Your task to perform on an android device: Search for the best rated 4K TV on Best Buy. Image 0: 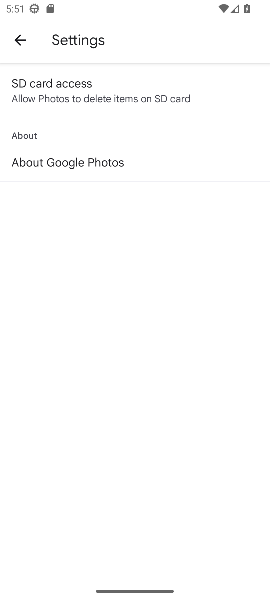
Step 0: press home button
Your task to perform on an android device: Search for the best rated 4K TV on Best Buy. Image 1: 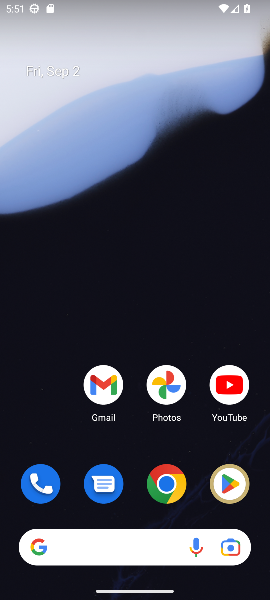
Step 1: click (167, 478)
Your task to perform on an android device: Search for the best rated 4K TV on Best Buy. Image 2: 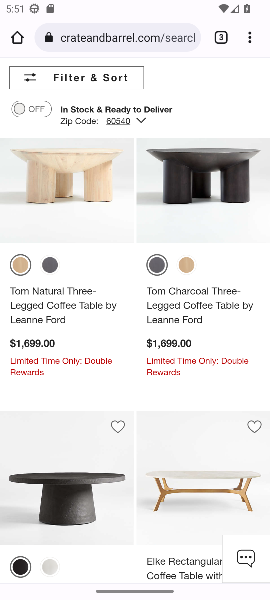
Step 2: click (165, 33)
Your task to perform on an android device: Search for the best rated 4K TV on Best Buy. Image 3: 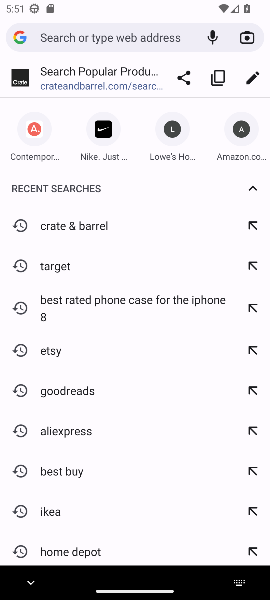
Step 3: type "Best Buy"
Your task to perform on an android device: Search for the best rated 4K TV on Best Buy. Image 4: 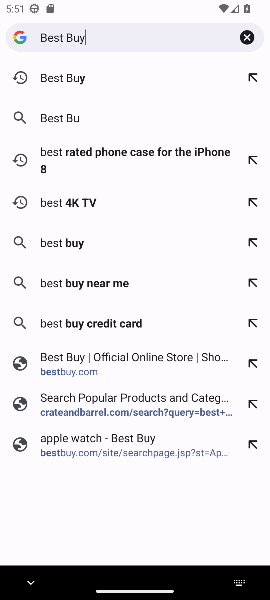
Step 4: press enter
Your task to perform on an android device: Search for the best rated 4K TV on Best Buy. Image 5: 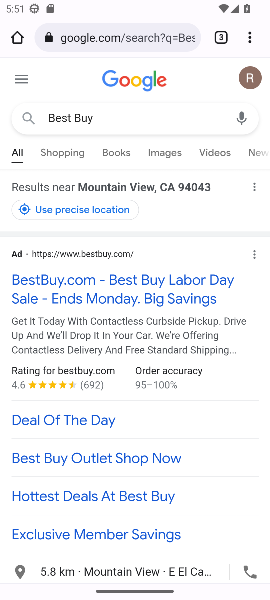
Step 5: drag from (131, 482) to (250, 126)
Your task to perform on an android device: Search for the best rated 4K TV on Best Buy. Image 6: 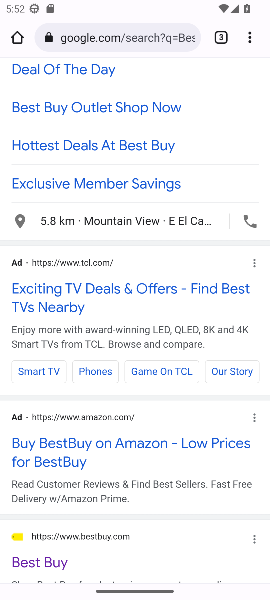
Step 6: drag from (111, 509) to (183, 244)
Your task to perform on an android device: Search for the best rated 4K TV on Best Buy. Image 7: 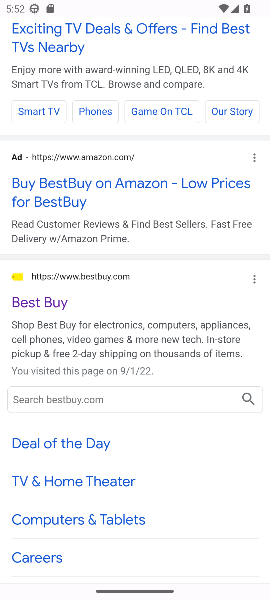
Step 7: click (26, 305)
Your task to perform on an android device: Search for the best rated 4K TV on Best Buy. Image 8: 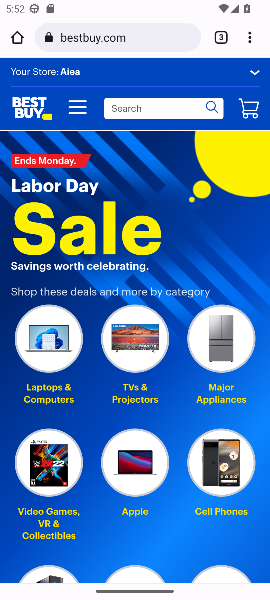
Step 8: click (161, 105)
Your task to perform on an android device: Search for the best rated 4K TV on Best Buy. Image 9: 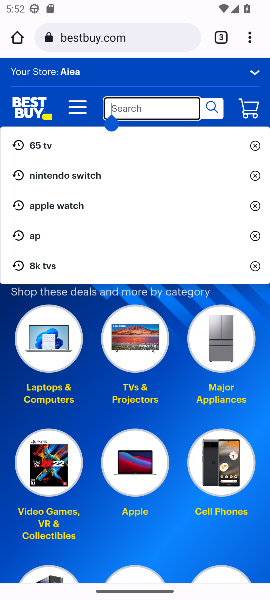
Step 9: click (191, 113)
Your task to perform on an android device: Search for the best rated 4K TV on Best Buy. Image 10: 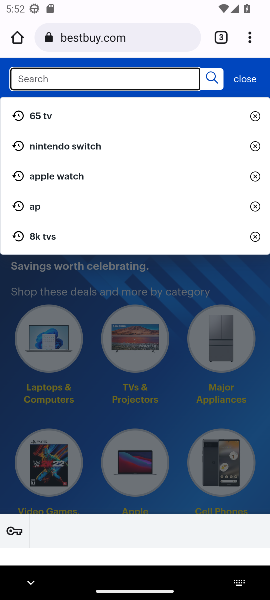
Step 10: type "best rated 4K TV"
Your task to perform on an android device: Search for the best rated 4K TV on Best Buy. Image 11: 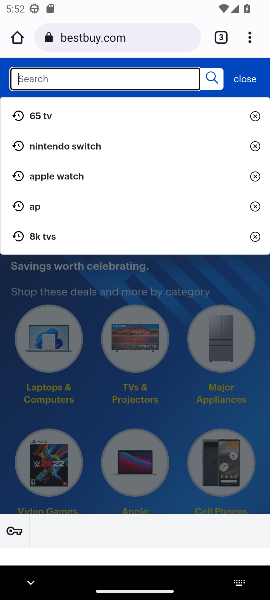
Step 11: press enter
Your task to perform on an android device: Search for the best rated 4K TV on Best Buy. Image 12: 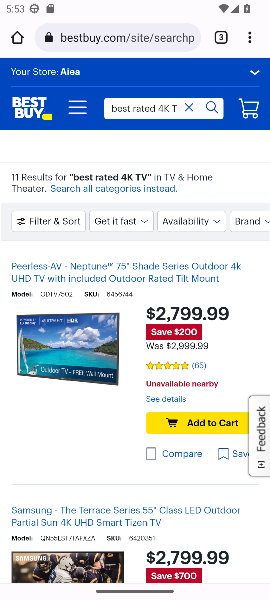
Step 12: drag from (93, 516) to (162, 209)
Your task to perform on an android device: Search for the best rated 4K TV on Best Buy. Image 13: 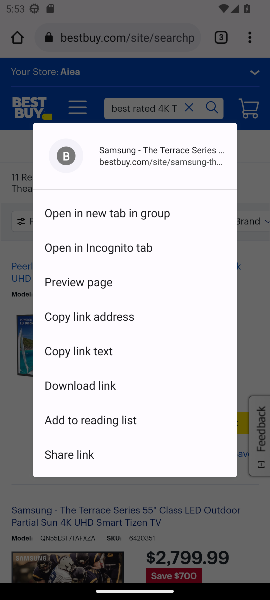
Step 13: click (248, 521)
Your task to perform on an android device: Search for the best rated 4K TV on Best Buy. Image 14: 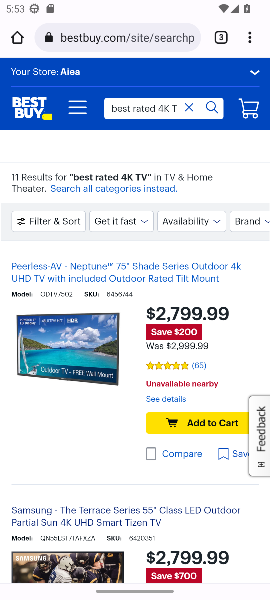
Step 14: task complete